Your task to perform on an android device: see creations saved in the google photos Image 0: 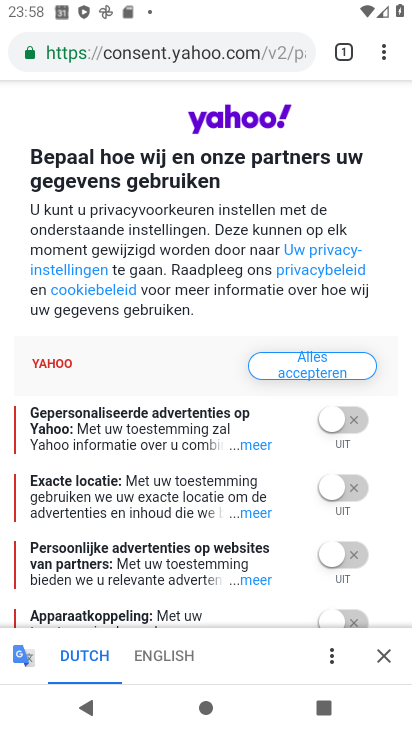
Step 0: press back button
Your task to perform on an android device: see creations saved in the google photos Image 1: 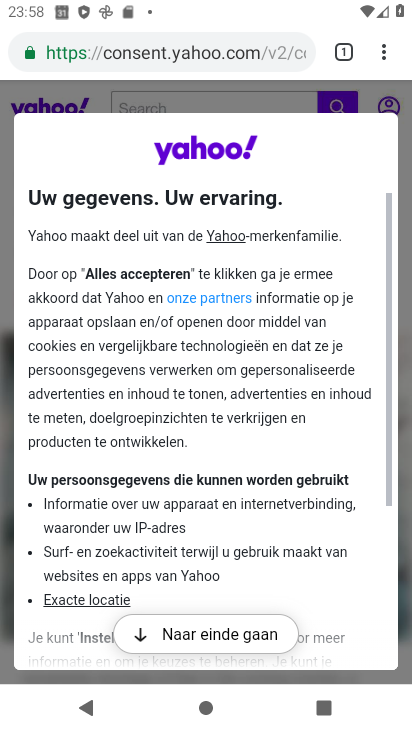
Step 1: press back button
Your task to perform on an android device: see creations saved in the google photos Image 2: 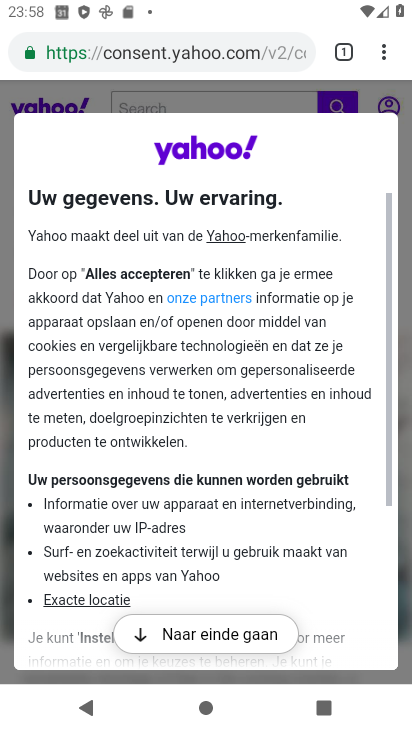
Step 2: press back button
Your task to perform on an android device: see creations saved in the google photos Image 3: 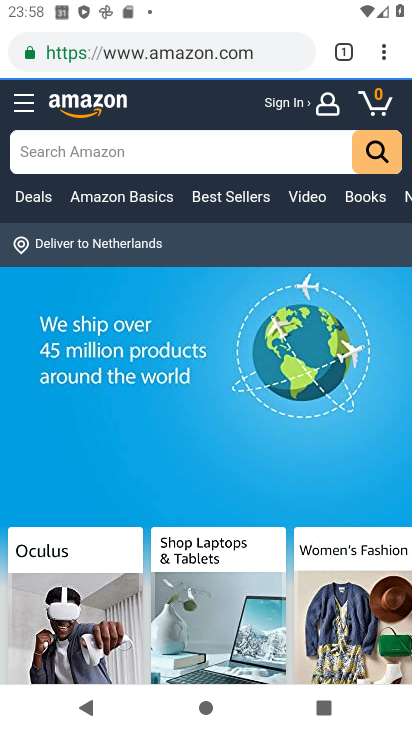
Step 3: press back button
Your task to perform on an android device: see creations saved in the google photos Image 4: 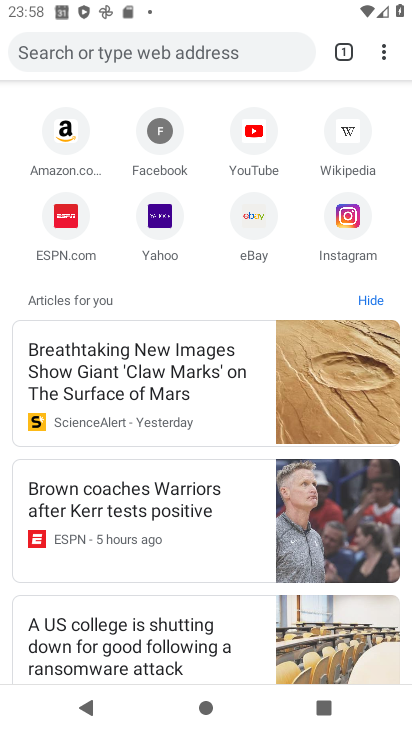
Step 4: press back button
Your task to perform on an android device: see creations saved in the google photos Image 5: 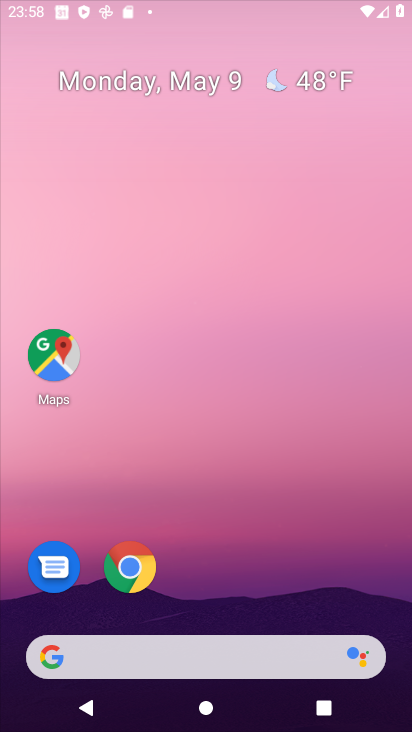
Step 5: press back button
Your task to perform on an android device: see creations saved in the google photos Image 6: 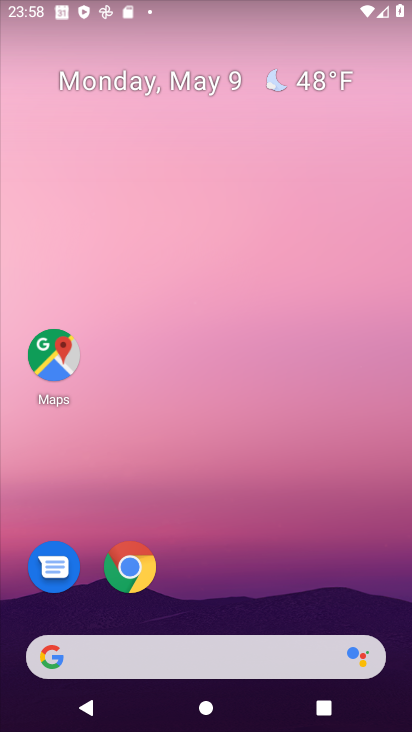
Step 6: drag from (235, 562) to (197, 34)
Your task to perform on an android device: see creations saved in the google photos Image 7: 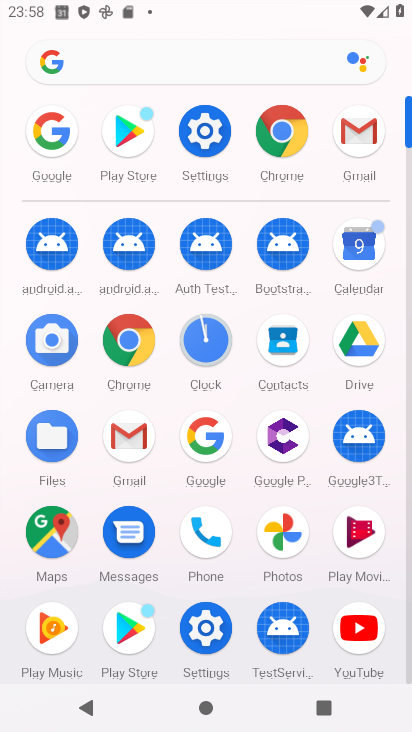
Step 7: click (278, 532)
Your task to perform on an android device: see creations saved in the google photos Image 8: 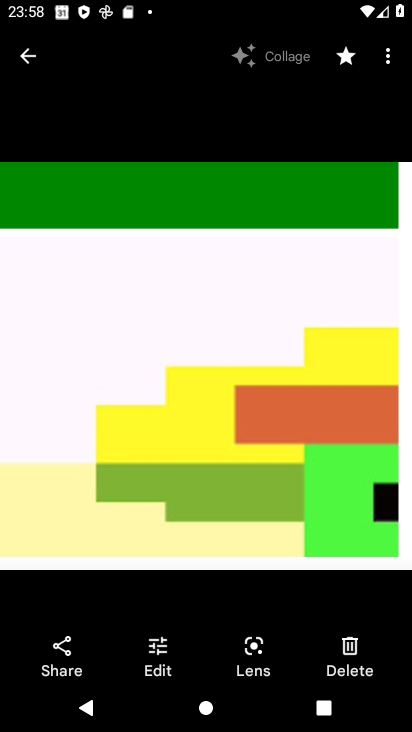
Step 8: press back button
Your task to perform on an android device: see creations saved in the google photos Image 9: 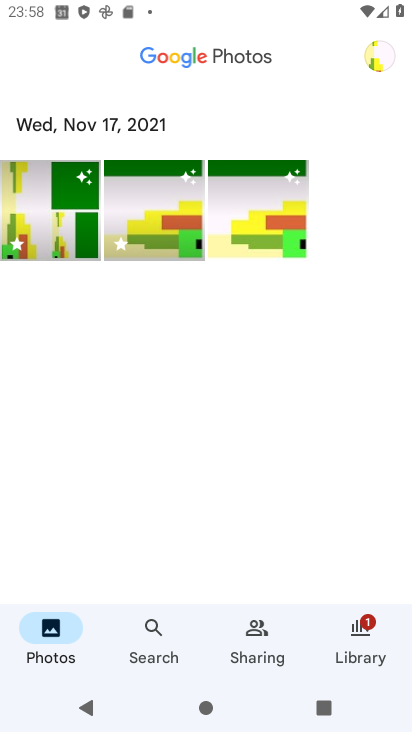
Step 9: click (356, 631)
Your task to perform on an android device: see creations saved in the google photos Image 10: 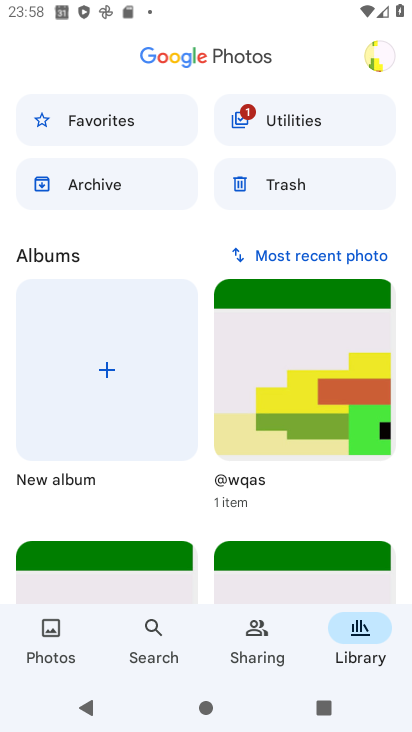
Step 10: drag from (249, 506) to (296, 202)
Your task to perform on an android device: see creations saved in the google photos Image 11: 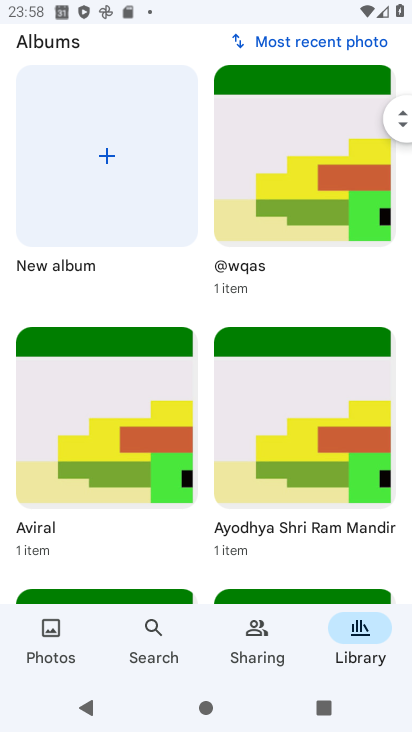
Step 11: drag from (274, 282) to (305, 500)
Your task to perform on an android device: see creations saved in the google photos Image 12: 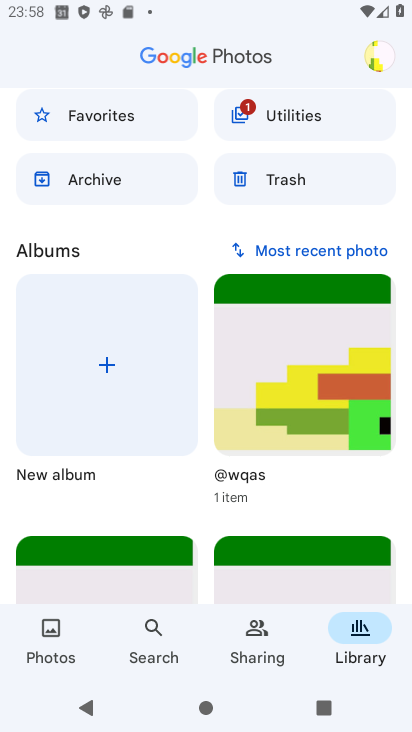
Step 12: click (93, 116)
Your task to perform on an android device: see creations saved in the google photos Image 13: 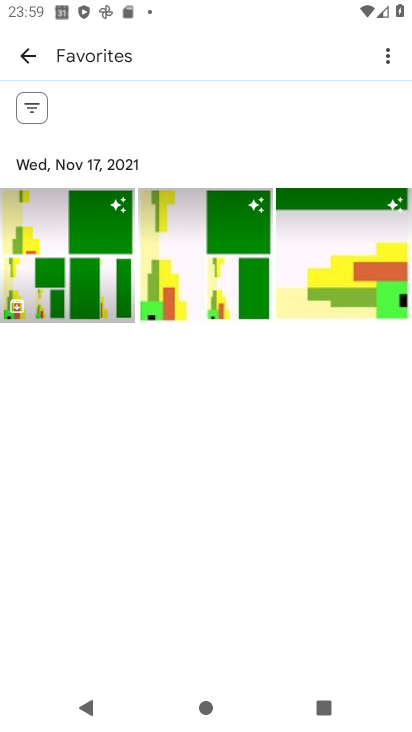
Step 13: click (31, 106)
Your task to perform on an android device: see creations saved in the google photos Image 14: 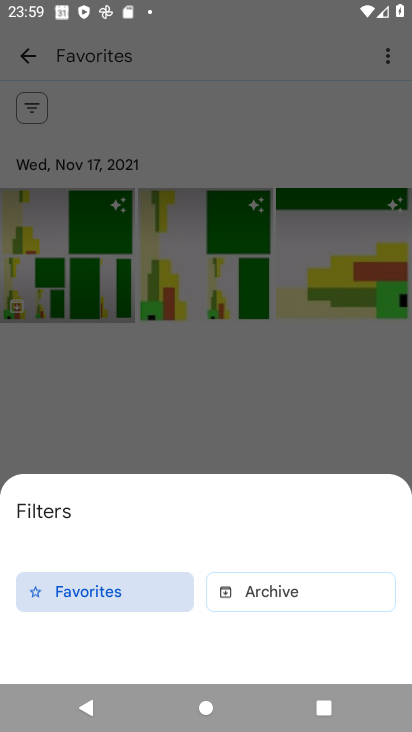
Step 14: click (245, 143)
Your task to perform on an android device: see creations saved in the google photos Image 15: 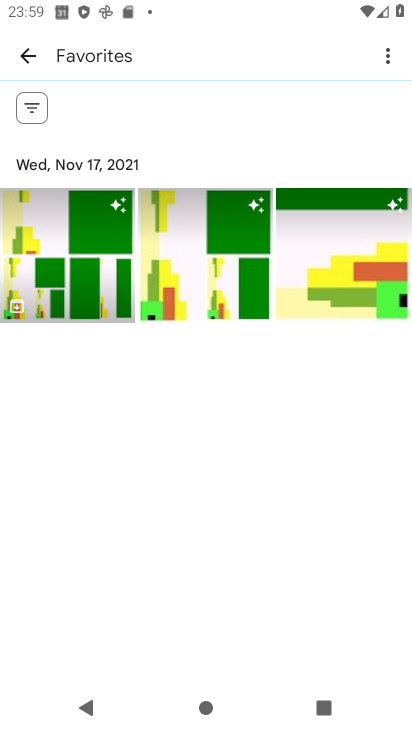
Step 15: task complete